Your task to perform on an android device: Go to accessibility settings Image 0: 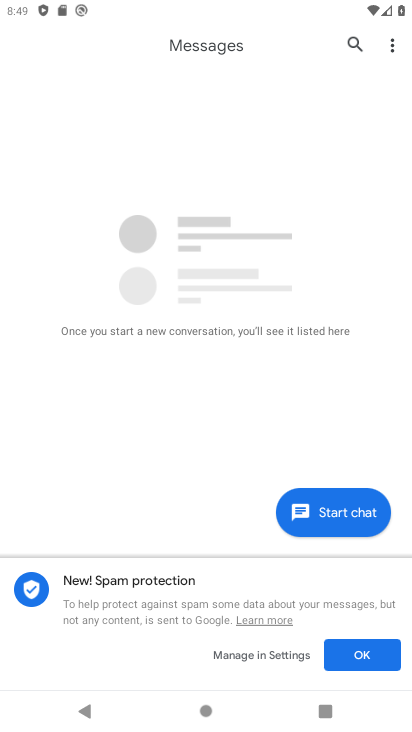
Step 0: press home button
Your task to perform on an android device: Go to accessibility settings Image 1: 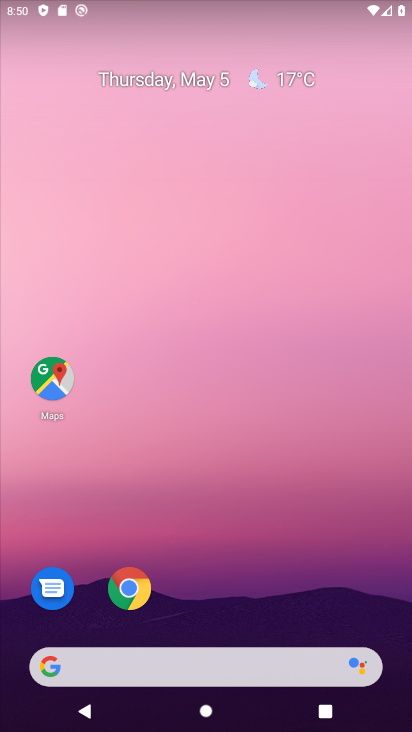
Step 1: drag from (205, 604) to (293, 169)
Your task to perform on an android device: Go to accessibility settings Image 2: 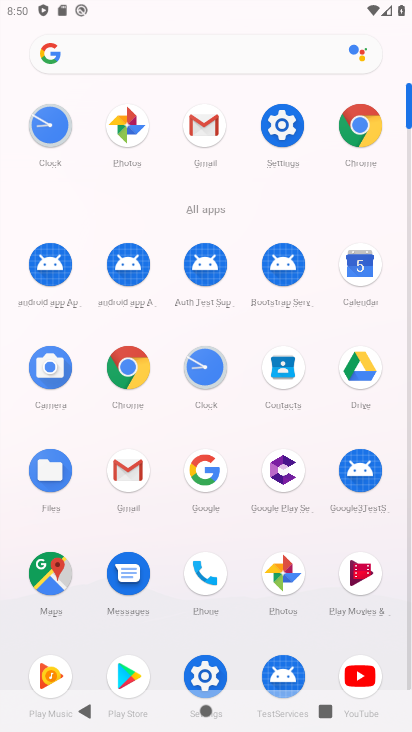
Step 2: click (277, 110)
Your task to perform on an android device: Go to accessibility settings Image 3: 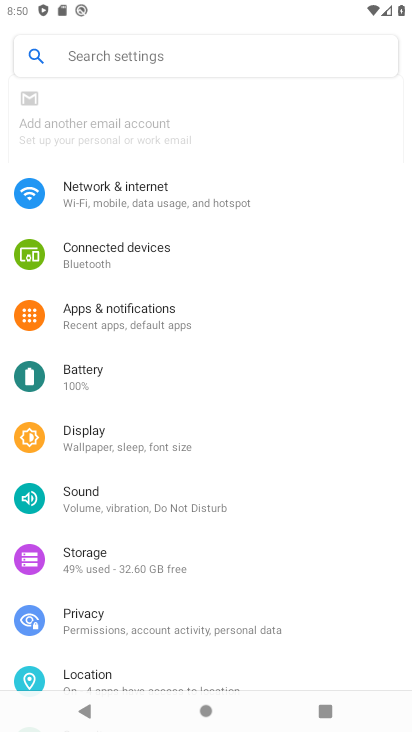
Step 3: drag from (179, 609) to (267, 170)
Your task to perform on an android device: Go to accessibility settings Image 4: 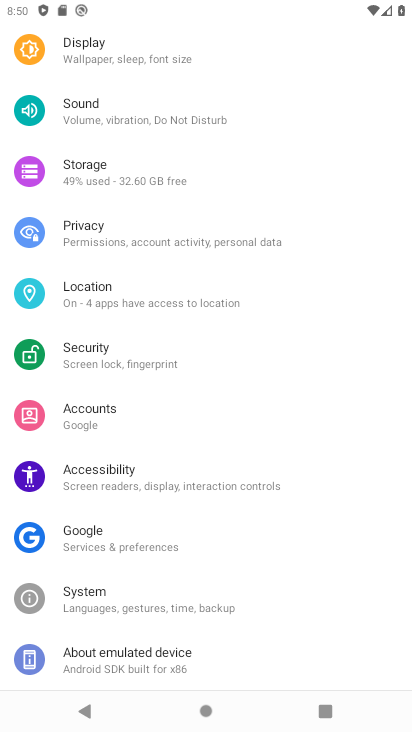
Step 4: click (199, 477)
Your task to perform on an android device: Go to accessibility settings Image 5: 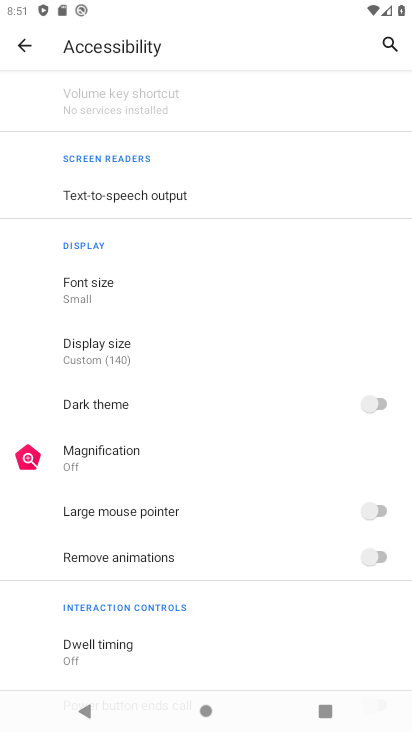
Step 5: task complete